Your task to perform on an android device: Search for a 1/2 in. x 1/2 in. x 24 in. 600 grit sander on Lowes.com Image 0: 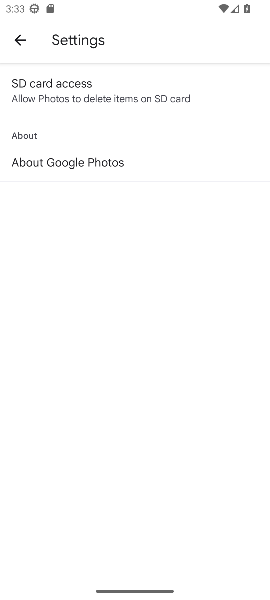
Step 0: press home button
Your task to perform on an android device: Search for a 1/2 in. x 1/2 in. x 24 in. 600 grit sander on Lowes.com Image 1: 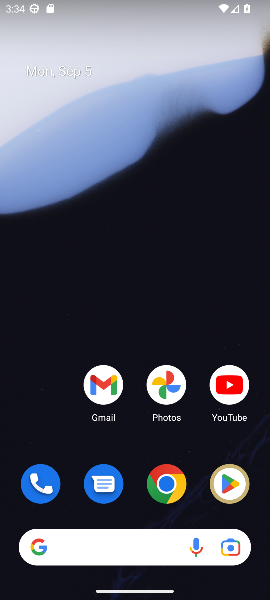
Step 1: click (160, 493)
Your task to perform on an android device: Search for a 1/2 in. x 1/2 in. x 24 in. 600 grit sander on Lowes.com Image 2: 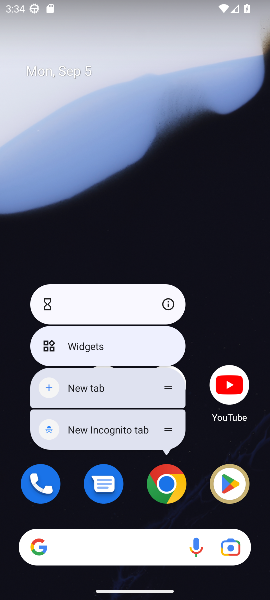
Step 2: click (166, 486)
Your task to perform on an android device: Search for a 1/2 in. x 1/2 in. x 24 in. 600 grit sander on Lowes.com Image 3: 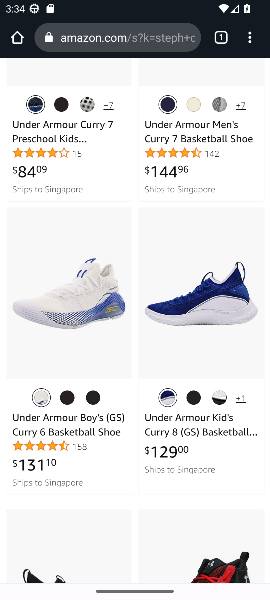
Step 3: click (149, 41)
Your task to perform on an android device: Search for a 1/2 in. x 1/2 in. x 24 in. 600 grit sander on Lowes.com Image 4: 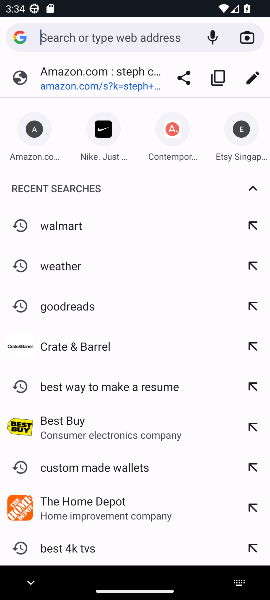
Step 4: type "Lowes.com"
Your task to perform on an android device: Search for a 1/2 in. x 1/2 in. x 24 in. 600 grit sander on Lowes.com Image 5: 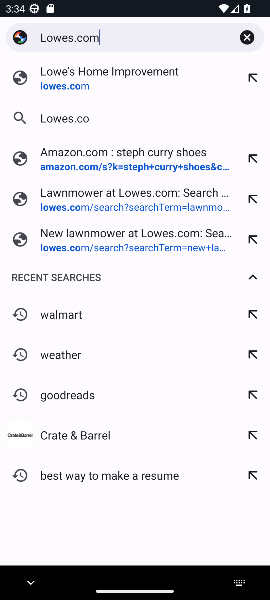
Step 5: press enter
Your task to perform on an android device: Search for a 1/2 in. x 1/2 in. x 24 in. 600 grit sander on Lowes.com Image 6: 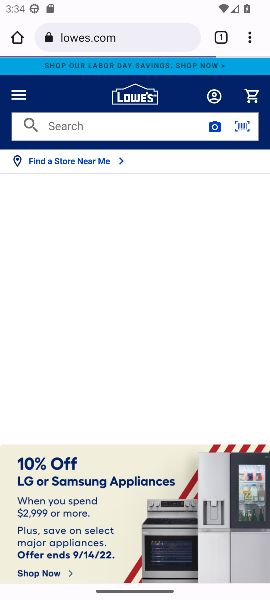
Step 6: click (130, 121)
Your task to perform on an android device: Search for a 1/2 in. x 1/2 in. x 24 in. 600 grit sander on Lowes.com Image 7: 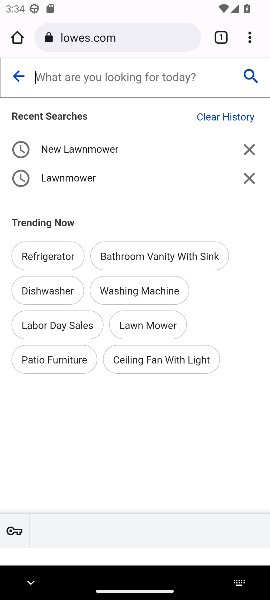
Step 7: type "1/2 in. x 1/2 in. x 24 in. 600 grit sander"
Your task to perform on an android device: Search for a 1/2 in. x 1/2 in. x 24 in. 600 grit sander on Lowes.com Image 8: 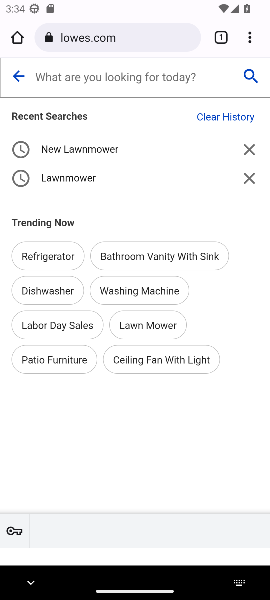
Step 8: press enter
Your task to perform on an android device: Search for a 1/2 in. x 1/2 in. x 24 in. 600 grit sander on Lowes.com Image 9: 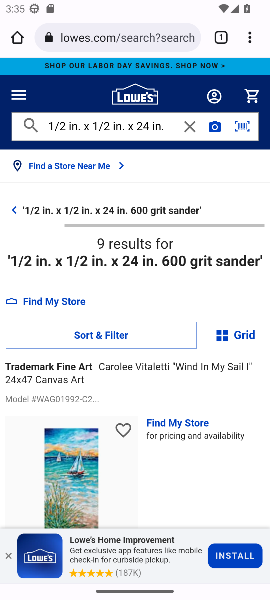
Step 9: task complete